Your task to perform on an android device: find snoozed emails in the gmail app Image 0: 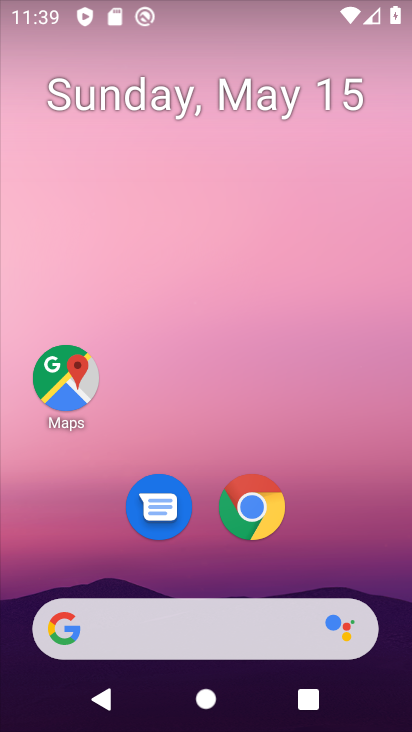
Step 0: drag from (350, 604) to (332, 0)
Your task to perform on an android device: find snoozed emails in the gmail app Image 1: 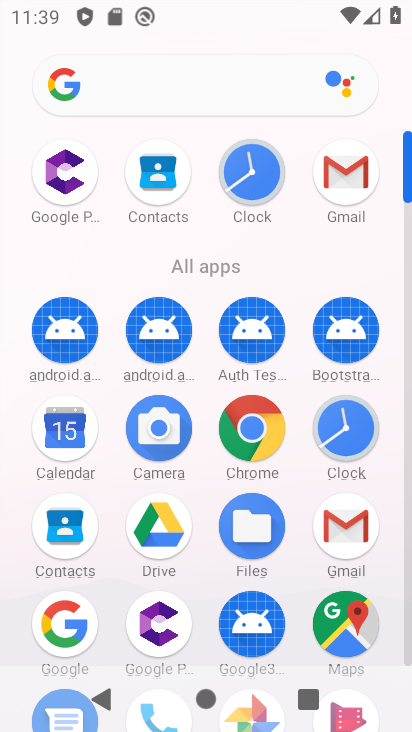
Step 1: click (342, 512)
Your task to perform on an android device: find snoozed emails in the gmail app Image 2: 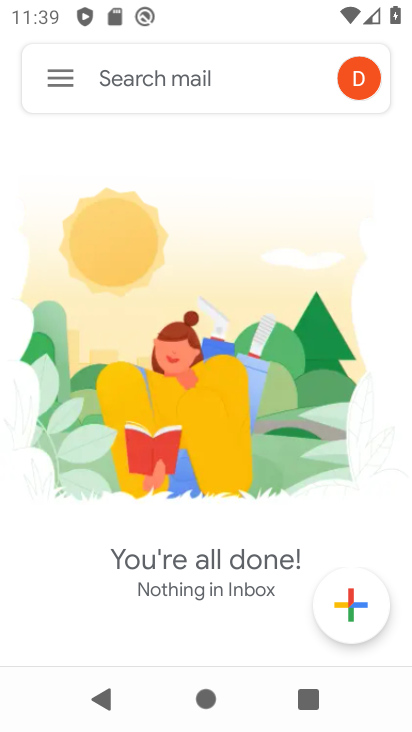
Step 2: click (67, 72)
Your task to perform on an android device: find snoozed emails in the gmail app Image 3: 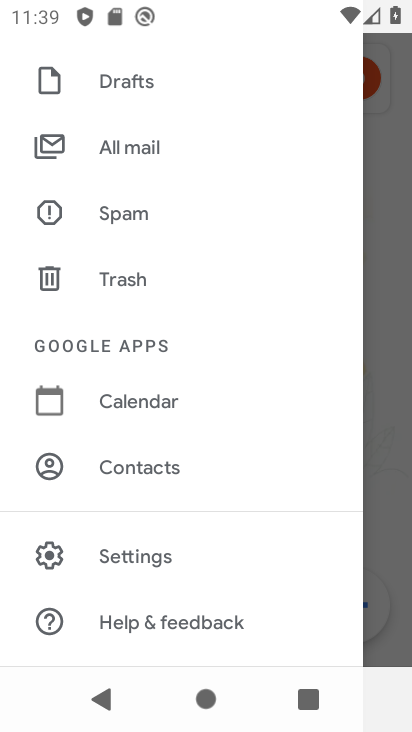
Step 3: drag from (175, 213) to (193, 661)
Your task to perform on an android device: find snoozed emails in the gmail app Image 4: 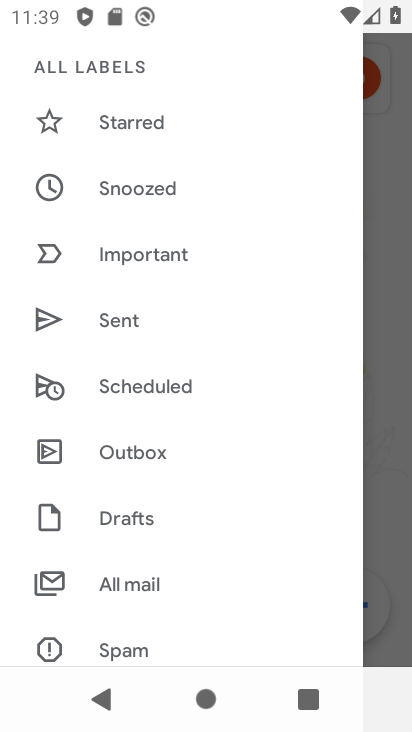
Step 4: click (135, 180)
Your task to perform on an android device: find snoozed emails in the gmail app Image 5: 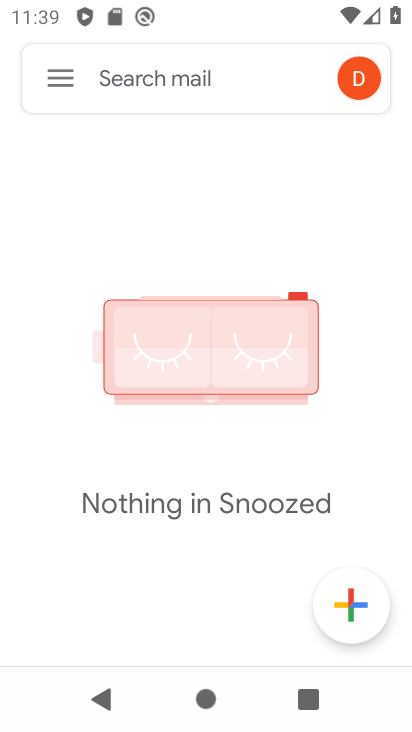
Step 5: task complete